Your task to perform on an android device: allow notifications from all sites in the chrome app Image 0: 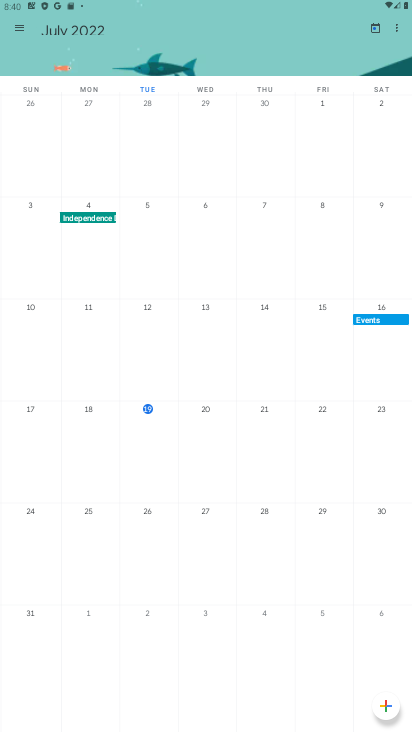
Step 0: task complete